Your task to perform on an android device: Go to calendar. Show me events next week Image 0: 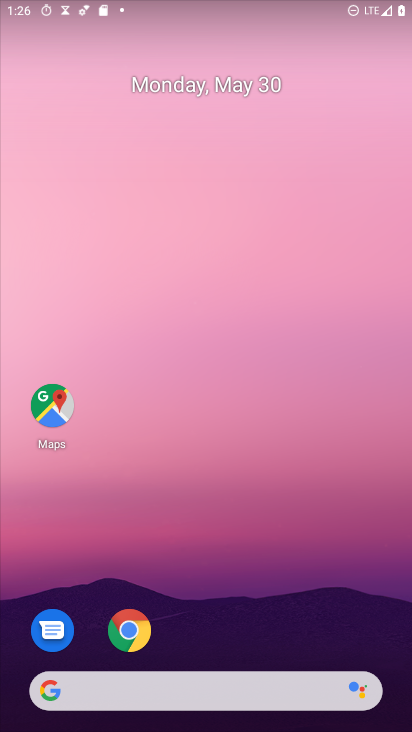
Step 0: press home button
Your task to perform on an android device: Go to calendar. Show me events next week Image 1: 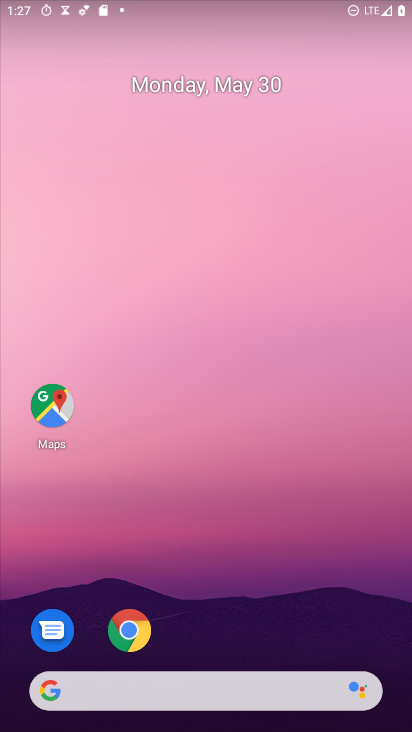
Step 1: drag from (288, 694) to (192, 182)
Your task to perform on an android device: Go to calendar. Show me events next week Image 2: 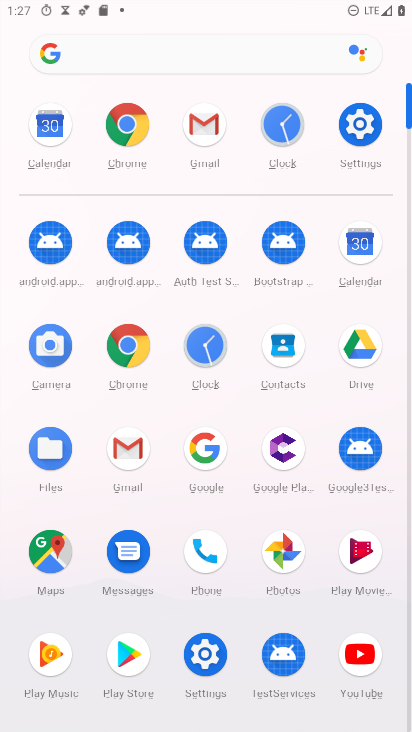
Step 2: click (58, 136)
Your task to perform on an android device: Go to calendar. Show me events next week Image 3: 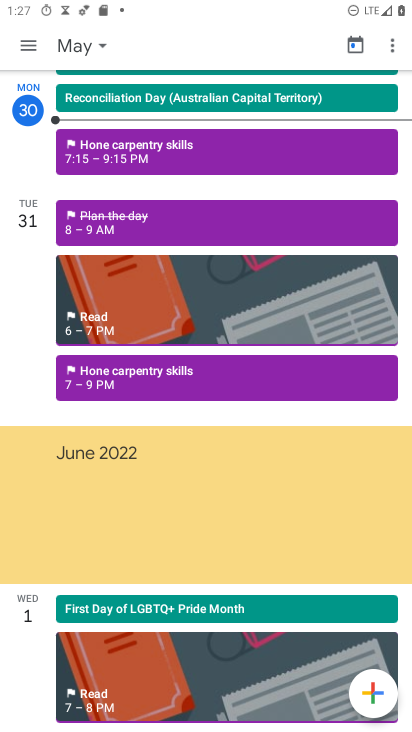
Step 3: click (25, 47)
Your task to perform on an android device: Go to calendar. Show me events next week Image 4: 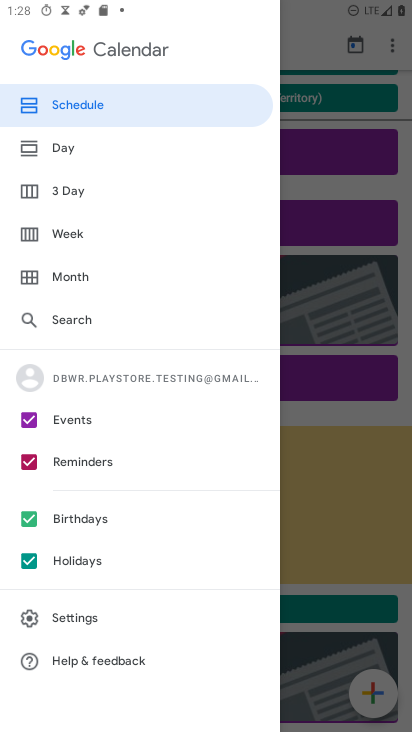
Step 4: click (83, 237)
Your task to perform on an android device: Go to calendar. Show me events next week Image 5: 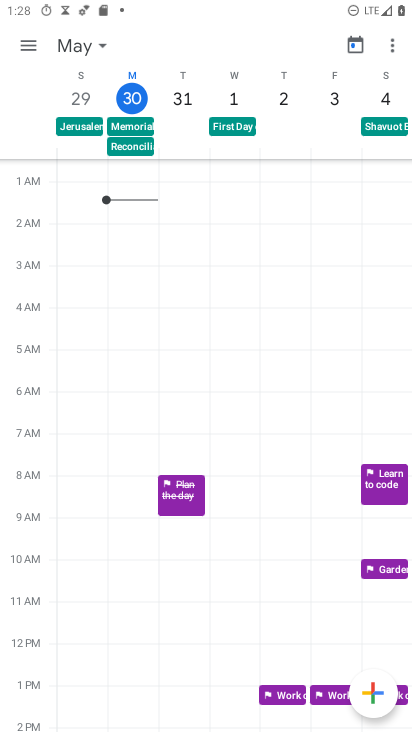
Step 5: task complete